Your task to perform on an android device: delete location history Image 0: 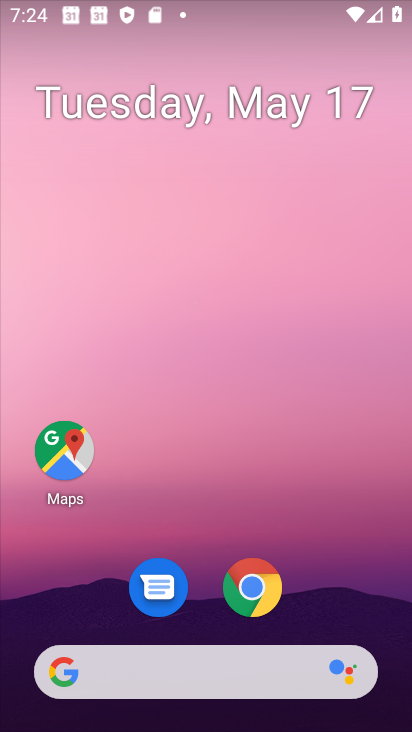
Step 0: press home button
Your task to perform on an android device: delete location history Image 1: 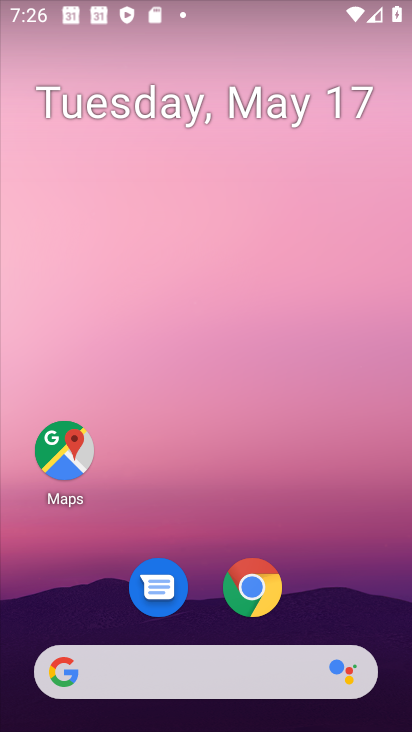
Step 1: drag from (207, 704) to (238, 301)
Your task to perform on an android device: delete location history Image 2: 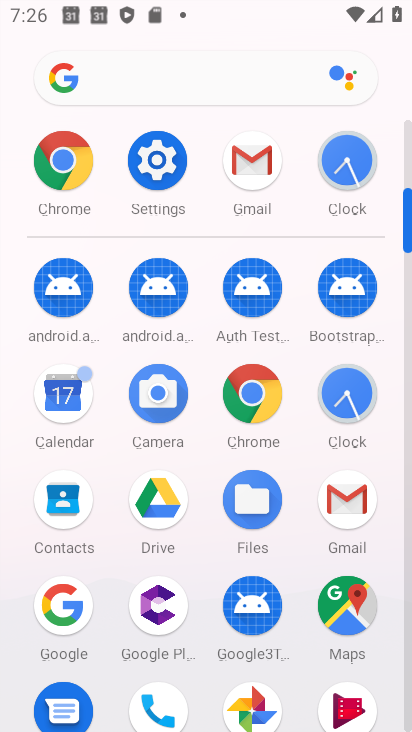
Step 2: click (157, 171)
Your task to perform on an android device: delete location history Image 3: 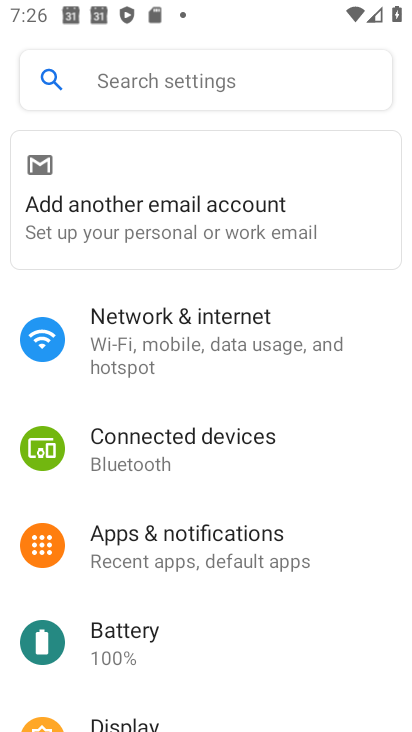
Step 3: click (143, 82)
Your task to perform on an android device: delete location history Image 4: 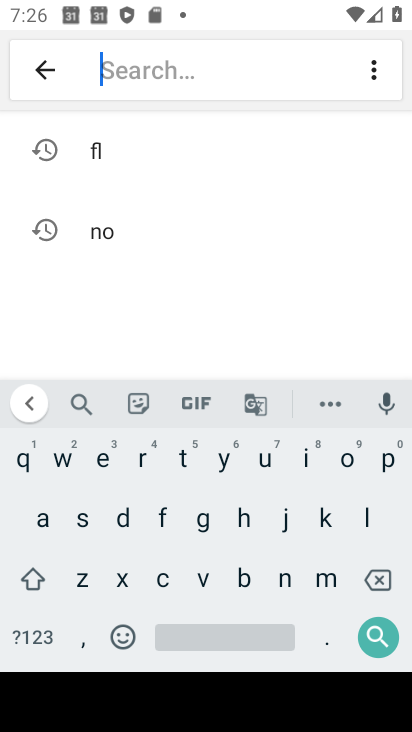
Step 4: click (370, 522)
Your task to perform on an android device: delete location history Image 5: 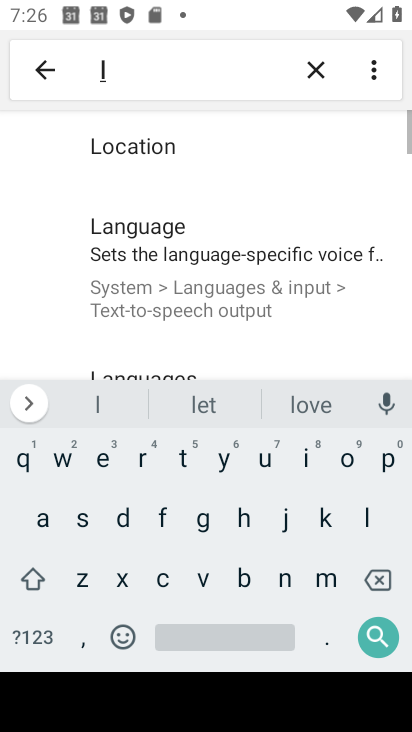
Step 5: click (342, 466)
Your task to perform on an android device: delete location history Image 6: 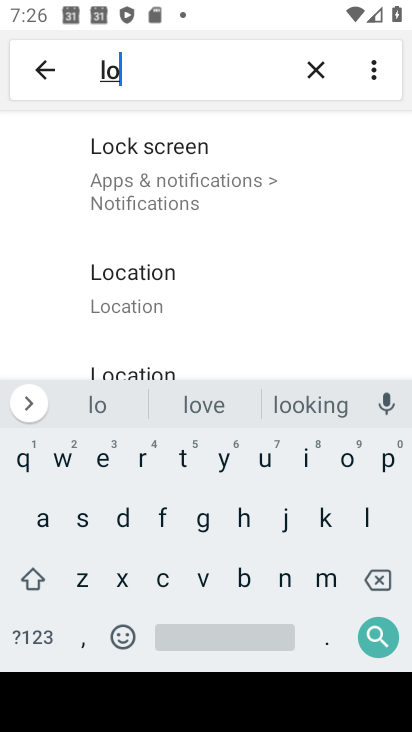
Step 6: click (116, 278)
Your task to perform on an android device: delete location history Image 7: 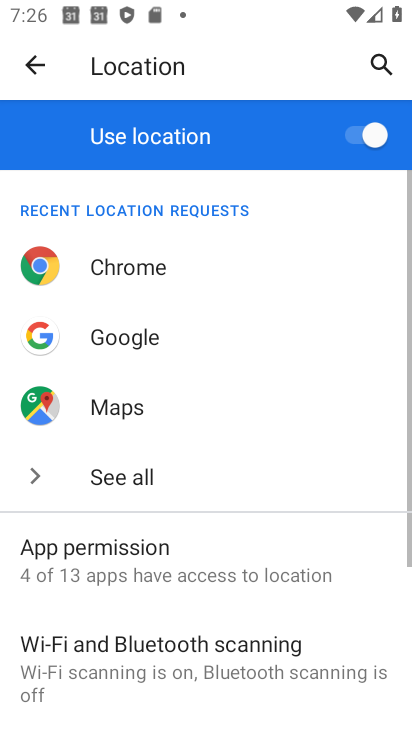
Step 7: drag from (103, 520) to (172, 184)
Your task to perform on an android device: delete location history Image 8: 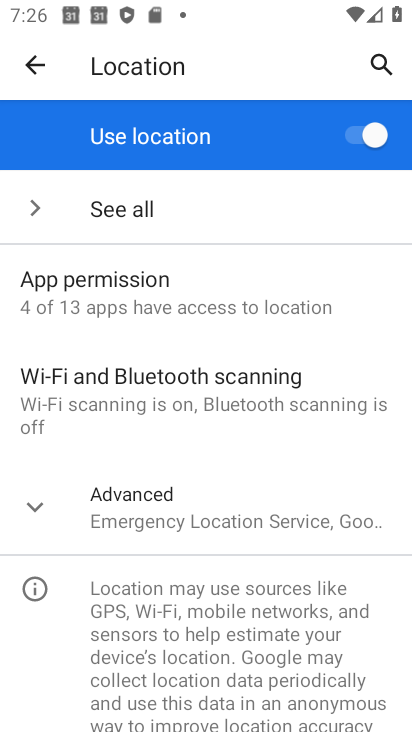
Step 8: click (41, 524)
Your task to perform on an android device: delete location history Image 9: 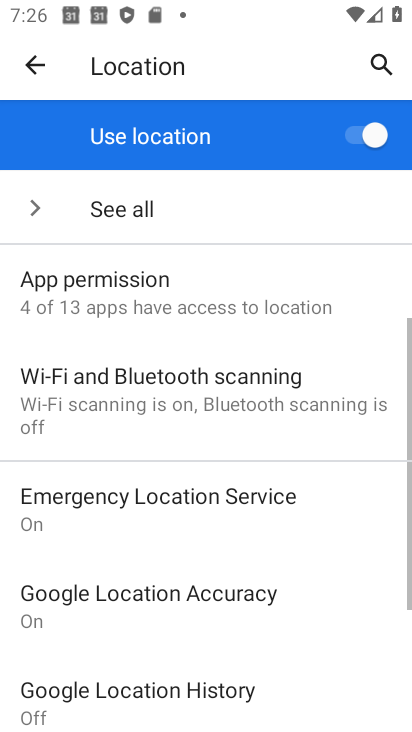
Step 9: drag from (113, 535) to (196, 368)
Your task to perform on an android device: delete location history Image 10: 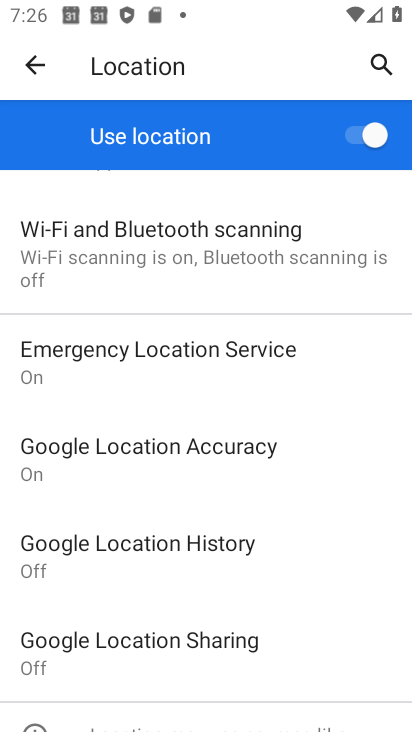
Step 10: click (152, 541)
Your task to perform on an android device: delete location history Image 11: 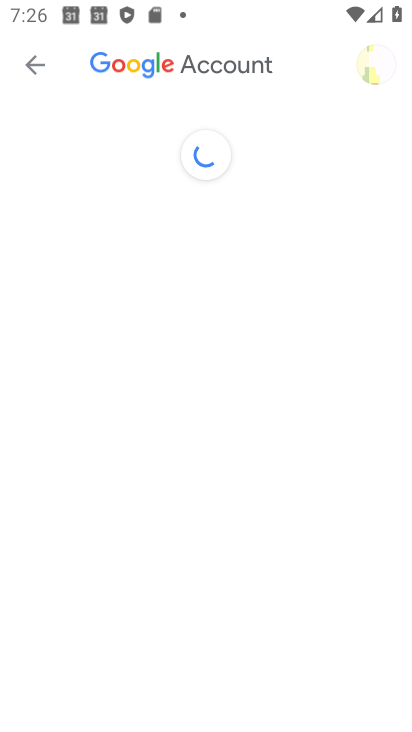
Step 11: drag from (151, 579) to (202, 231)
Your task to perform on an android device: delete location history Image 12: 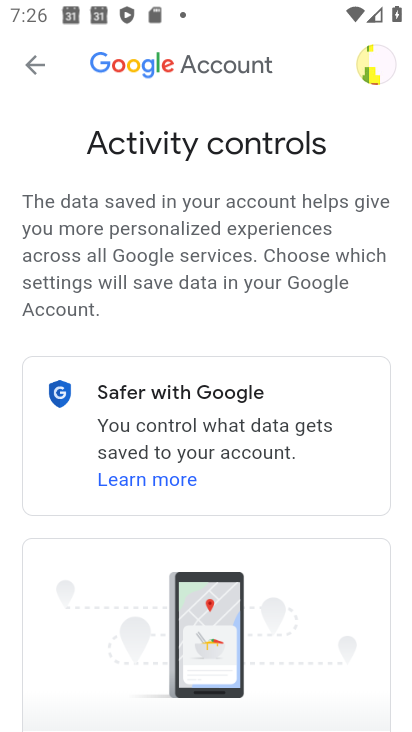
Step 12: drag from (229, 608) to (198, 214)
Your task to perform on an android device: delete location history Image 13: 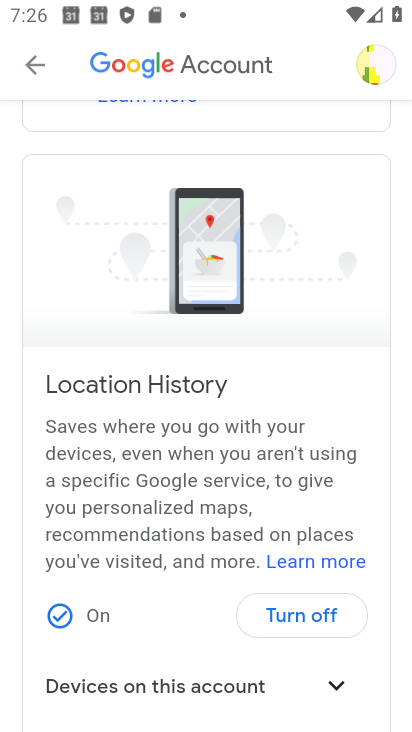
Step 13: click (223, 685)
Your task to perform on an android device: delete location history Image 14: 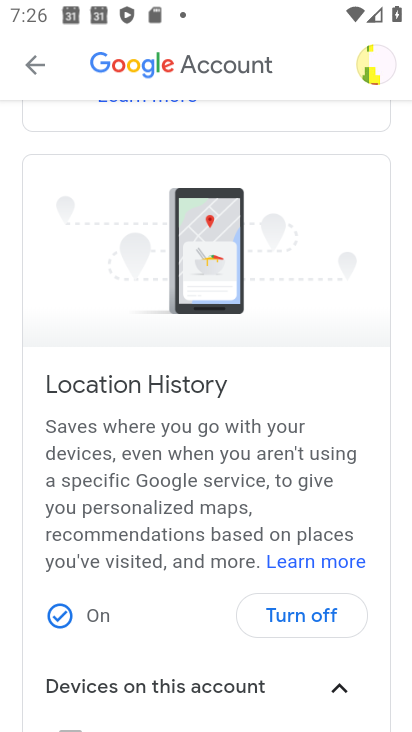
Step 14: task complete